Your task to perform on an android device: turn smart compose on in the gmail app Image 0: 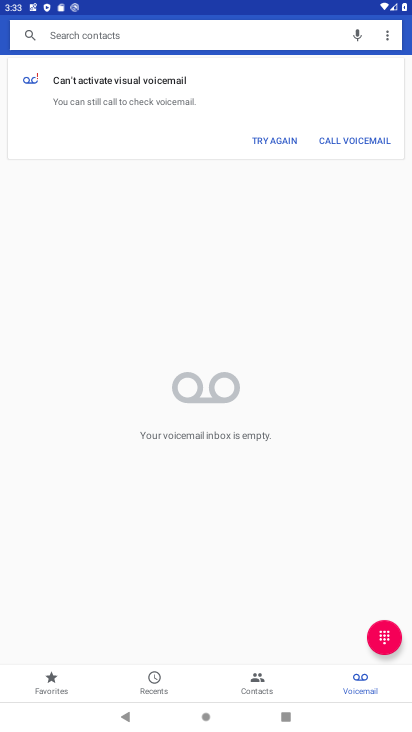
Step 0: press home button
Your task to perform on an android device: turn smart compose on in the gmail app Image 1: 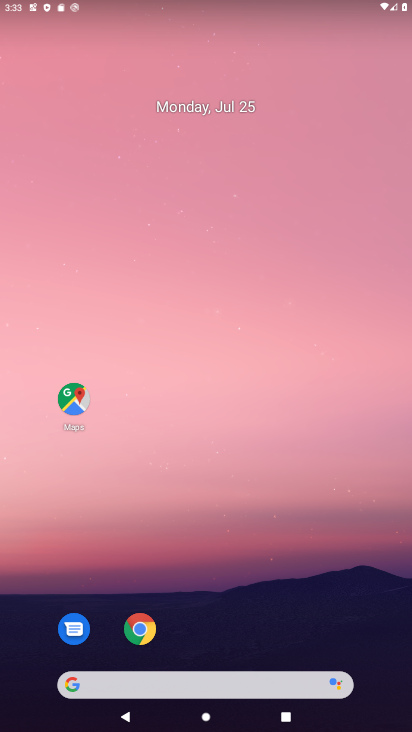
Step 1: drag from (247, 648) to (238, 135)
Your task to perform on an android device: turn smart compose on in the gmail app Image 2: 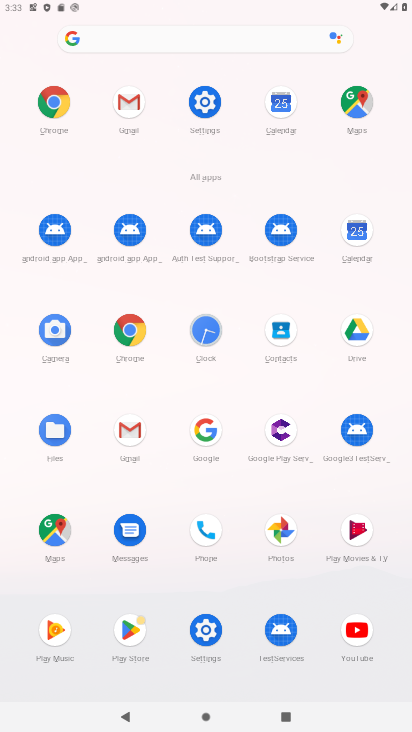
Step 2: click (146, 438)
Your task to perform on an android device: turn smart compose on in the gmail app Image 3: 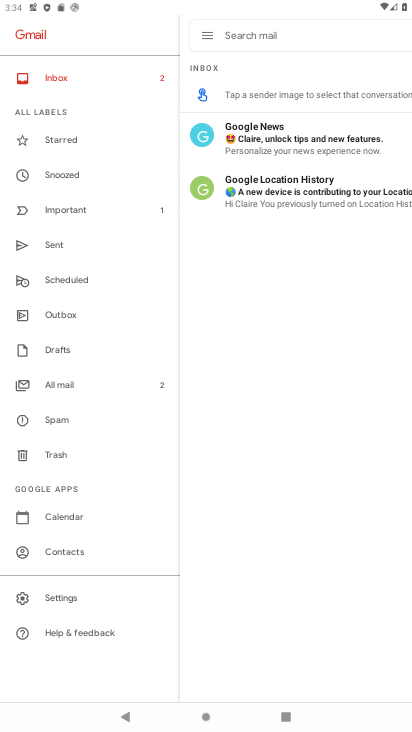
Step 3: click (71, 592)
Your task to perform on an android device: turn smart compose on in the gmail app Image 4: 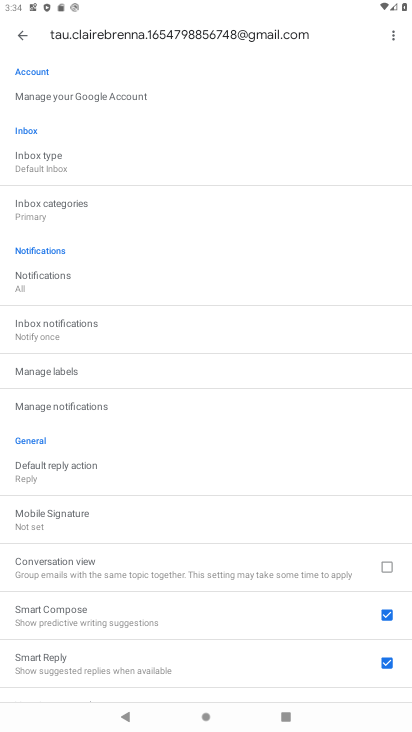
Step 4: task complete